Your task to perform on an android device: move an email to a new category in the gmail app Image 0: 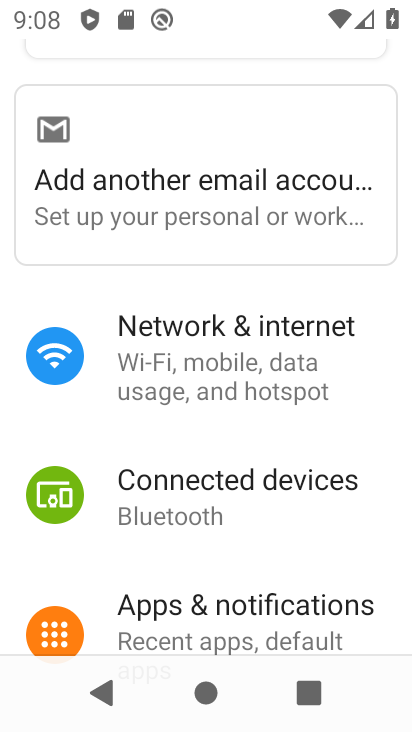
Step 0: press back button
Your task to perform on an android device: move an email to a new category in the gmail app Image 1: 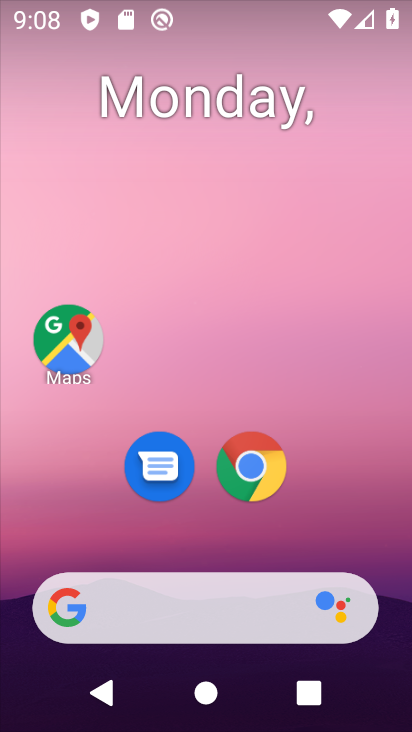
Step 1: drag from (291, 602) to (123, 107)
Your task to perform on an android device: move an email to a new category in the gmail app Image 2: 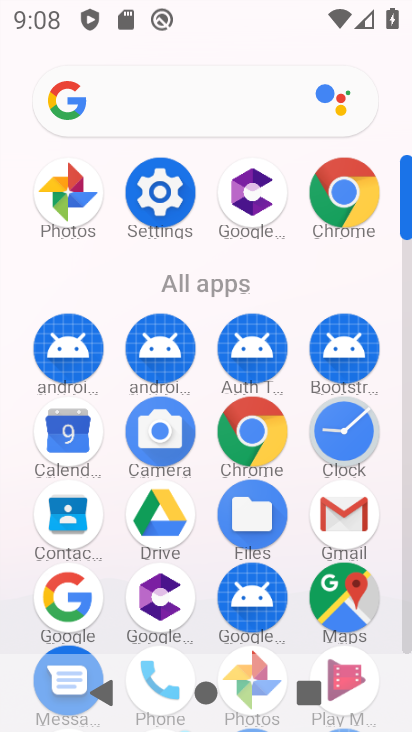
Step 2: click (324, 509)
Your task to perform on an android device: move an email to a new category in the gmail app Image 3: 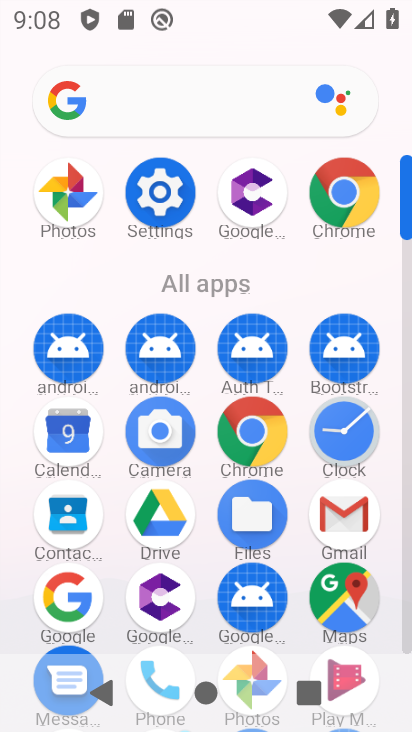
Step 3: click (327, 510)
Your task to perform on an android device: move an email to a new category in the gmail app Image 4: 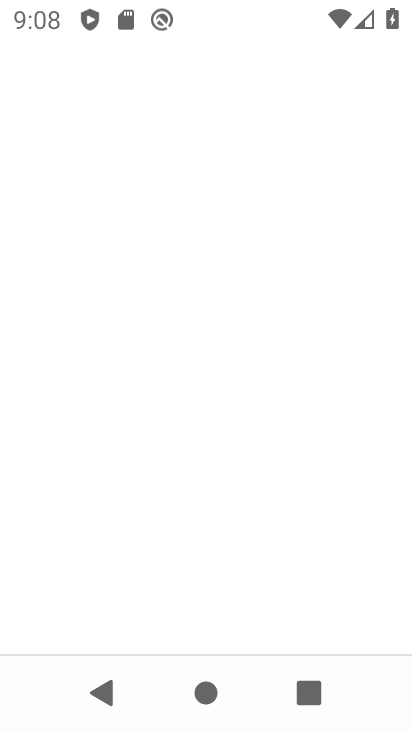
Step 4: click (342, 517)
Your task to perform on an android device: move an email to a new category in the gmail app Image 5: 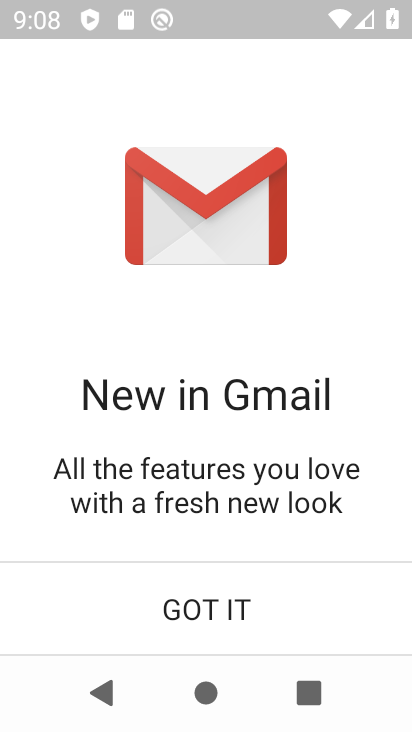
Step 5: click (212, 600)
Your task to perform on an android device: move an email to a new category in the gmail app Image 6: 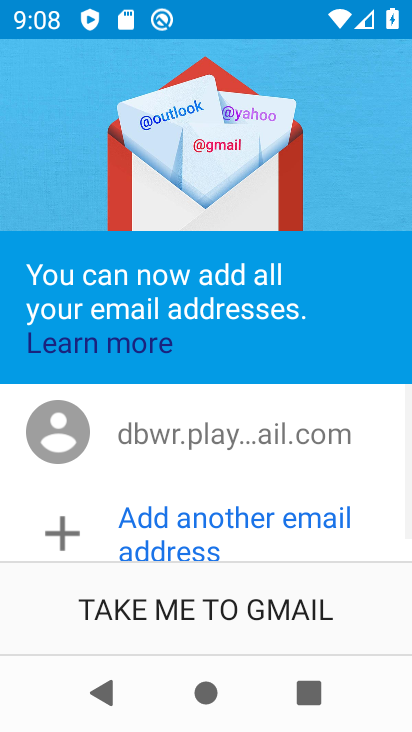
Step 6: click (172, 612)
Your task to perform on an android device: move an email to a new category in the gmail app Image 7: 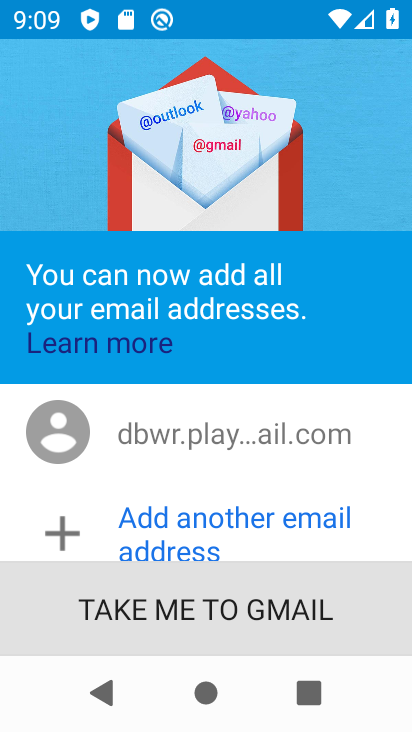
Step 7: click (172, 612)
Your task to perform on an android device: move an email to a new category in the gmail app Image 8: 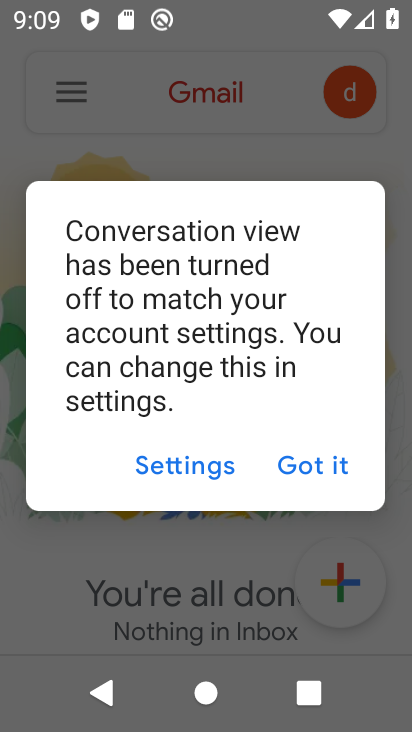
Step 8: click (317, 455)
Your task to perform on an android device: move an email to a new category in the gmail app Image 9: 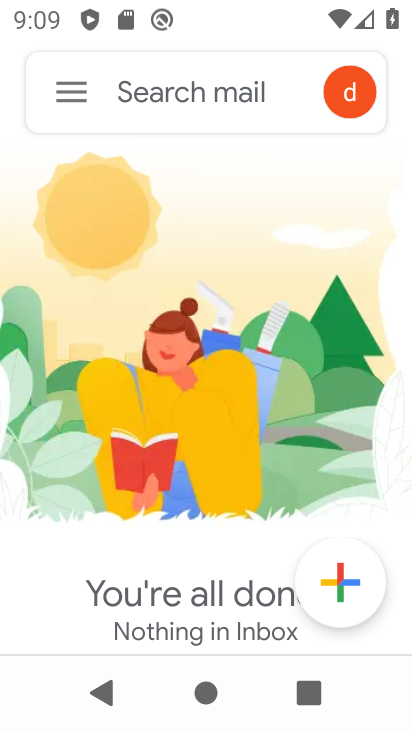
Step 9: click (75, 93)
Your task to perform on an android device: move an email to a new category in the gmail app Image 10: 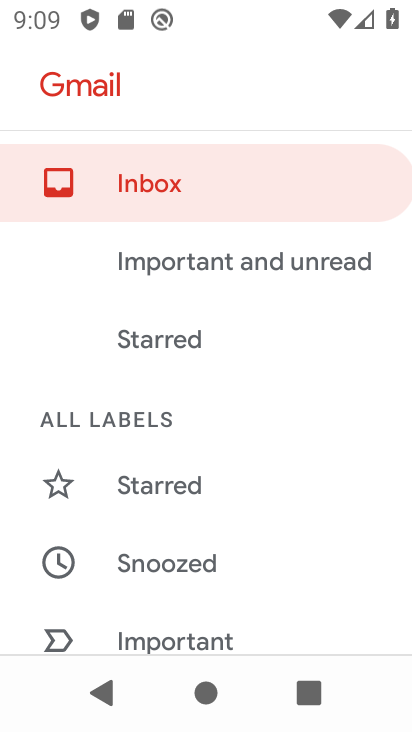
Step 10: drag from (205, 534) to (198, 210)
Your task to perform on an android device: move an email to a new category in the gmail app Image 11: 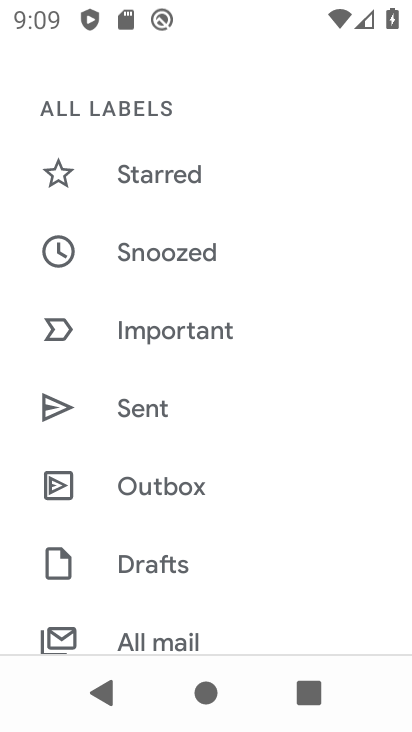
Step 11: drag from (218, 465) to (231, 137)
Your task to perform on an android device: move an email to a new category in the gmail app Image 12: 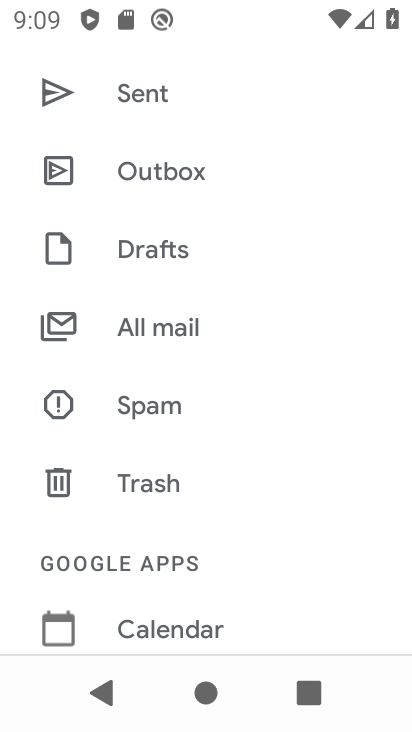
Step 12: drag from (302, 508) to (324, 50)
Your task to perform on an android device: move an email to a new category in the gmail app Image 13: 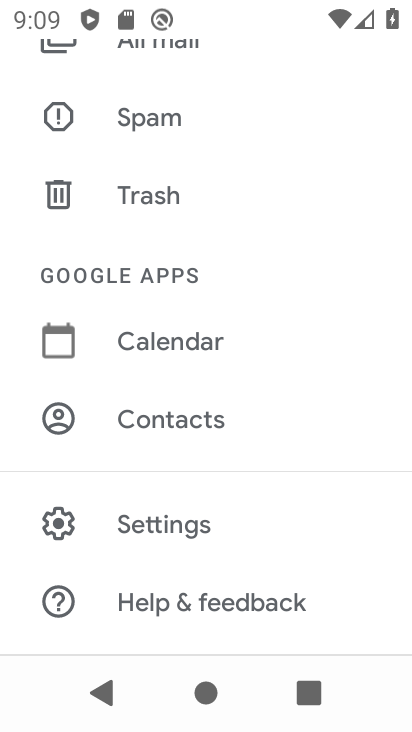
Step 13: drag from (230, 205) to (246, 684)
Your task to perform on an android device: move an email to a new category in the gmail app Image 14: 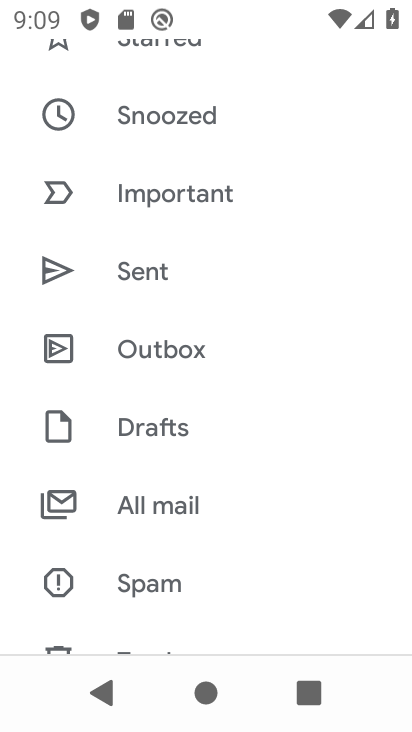
Step 14: click (164, 504)
Your task to perform on an android device: move an email to a new category in the gmail app Image 15: 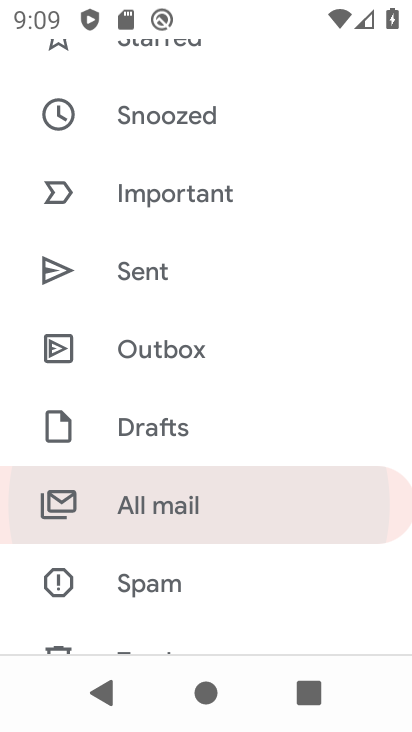
Step 15: click (164, 504)
Your task to perform on an android device: move an email to a new category in the gmail app Image 16: 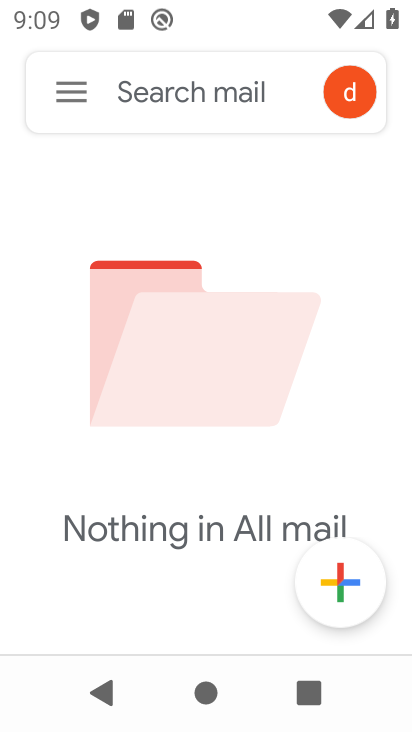
Step 16: task complete